Your task to perform on an android device: change the clock display to show seconds Image 0: 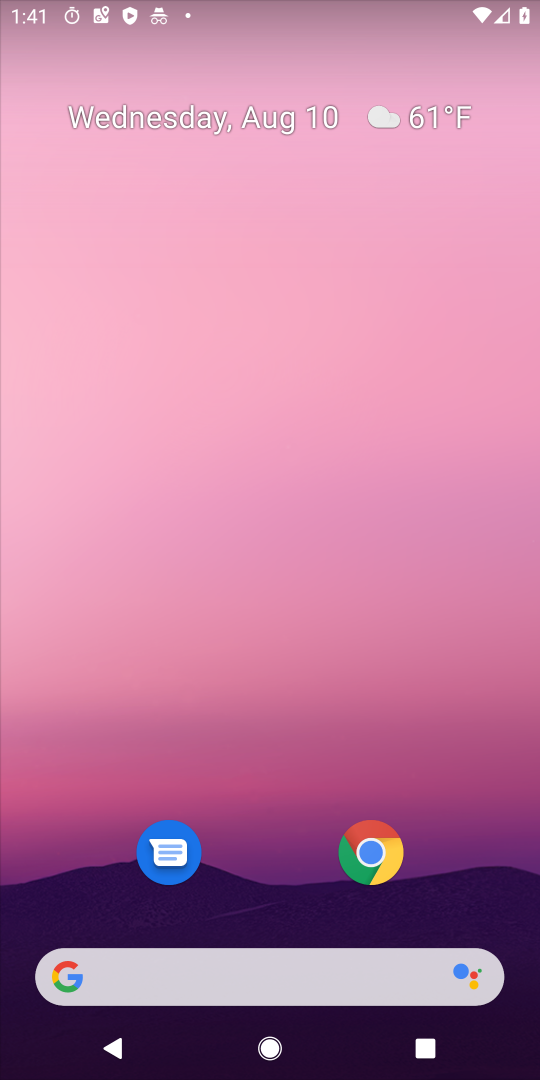
Step 0: drag from (257, 808) to (274, 172)
Your task to perform on an android device: change the clock display to show seconds Image 1: 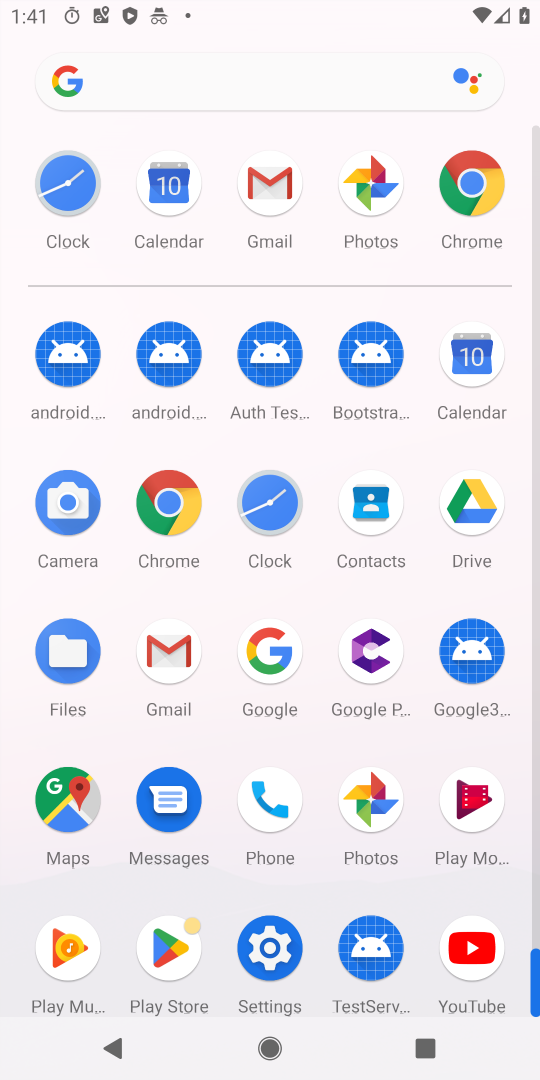
Step 1: click (276, 496)
Your task to perform on an android device: change the clock display to show seconds Image 2: 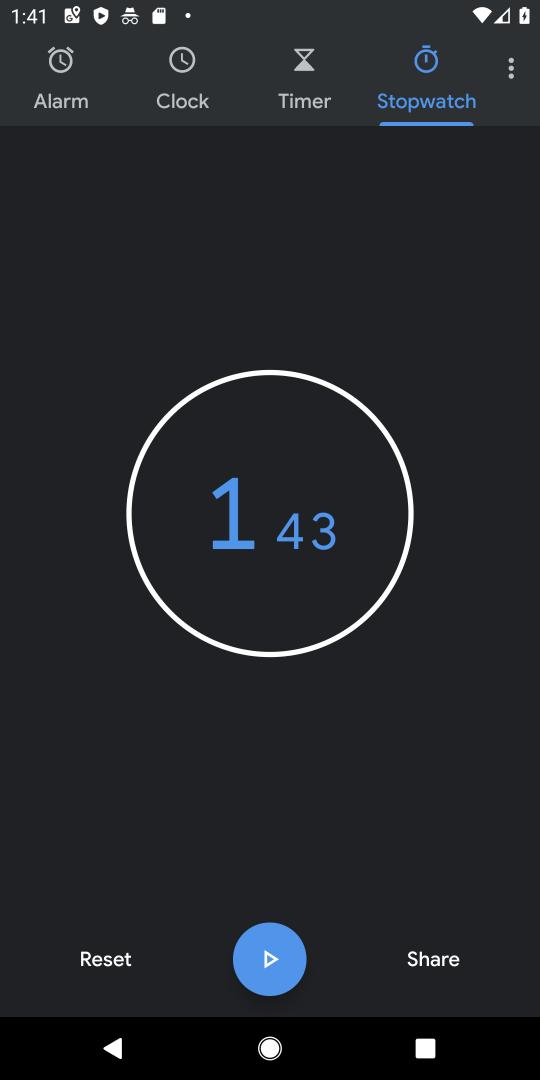
Step 2: click (521, 49)
Your task to perform on an android device: change the clock display to show seconds Image 3: 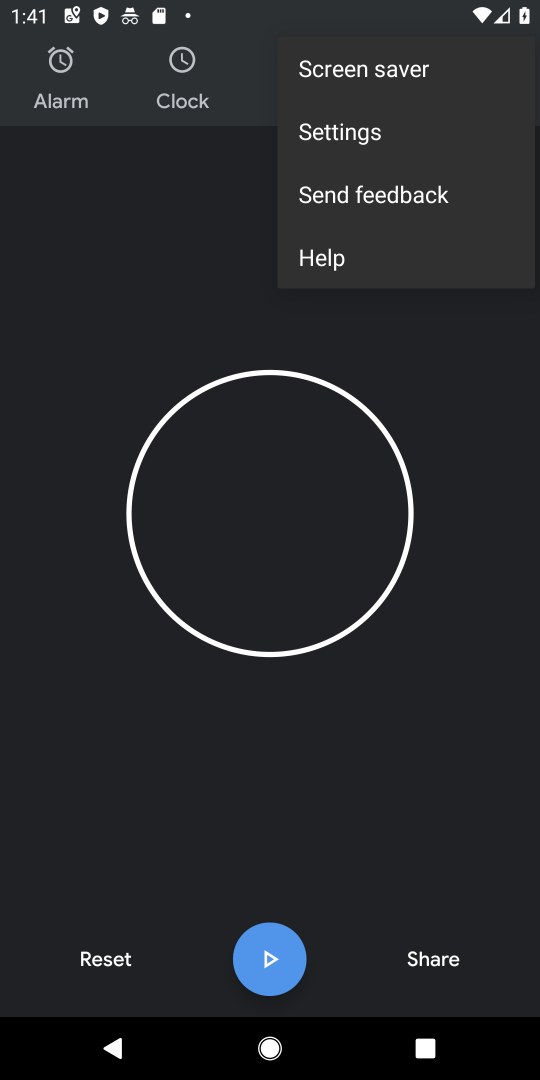
Step 3: click (363, 143)
Your task to perform on an android device: change the clock display to show seconds Image 4: 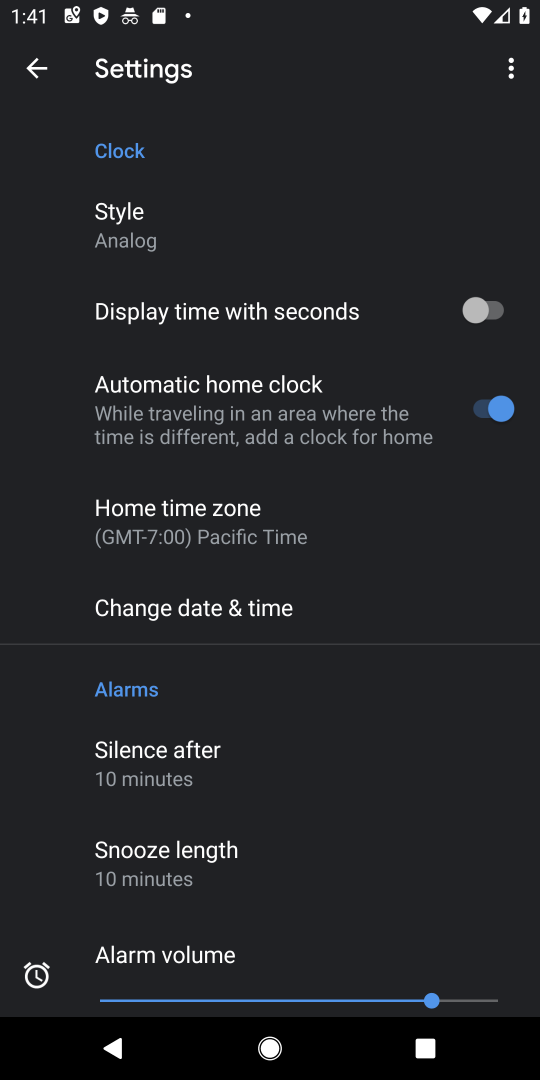
Step 4: click (464, 317)
Your task to perform on an android device: change the clock display to show seconds Image 5: 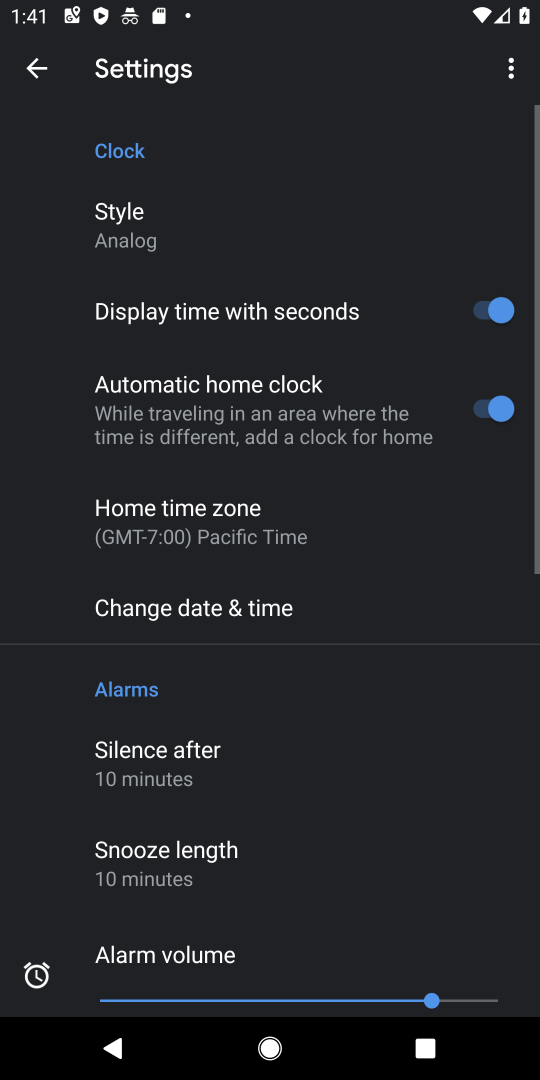
Step 5: task complete